Your task to perform on an android device: Go to location settings Image 0: 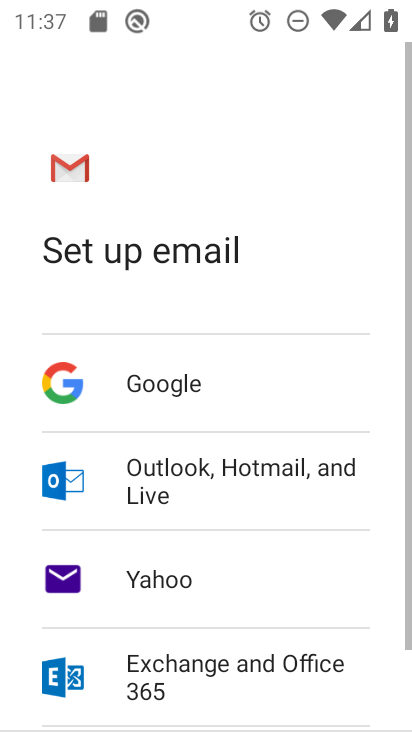
Step 0: press home button
Your task to perform on an android device: Go to location settings Image 1: 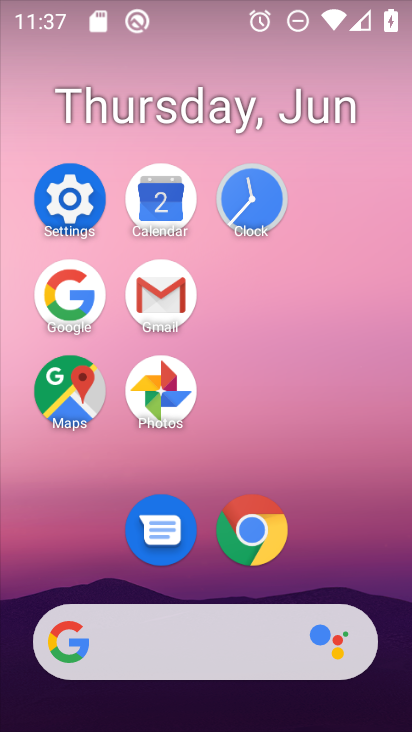
Step 1: click (99, 199)
Your task to perform on an android device: Go to location settings Image 2: 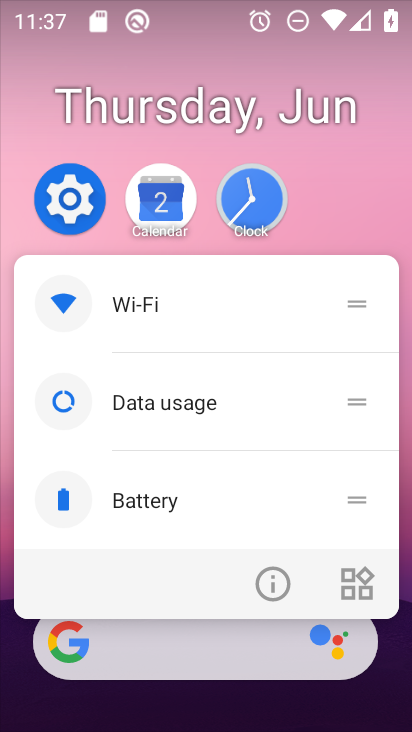
Step 2: click (92, 203)
Your task to perform on an android device: Go to location settings Image 3: 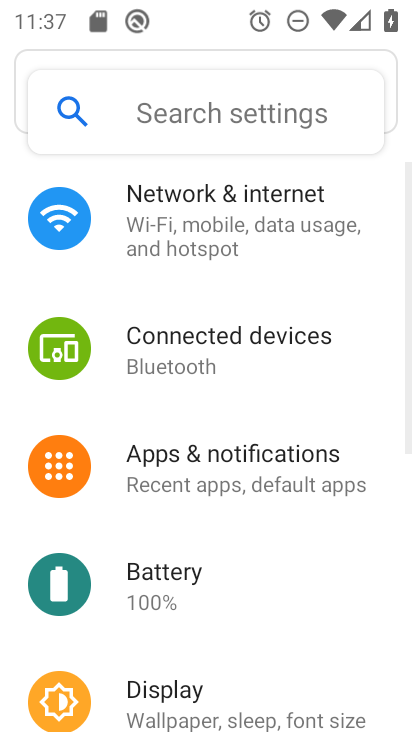
Step 3: drag from (245, 680) to (277, 247)
Your task to perform on an android device: Go to location settings Image 4: 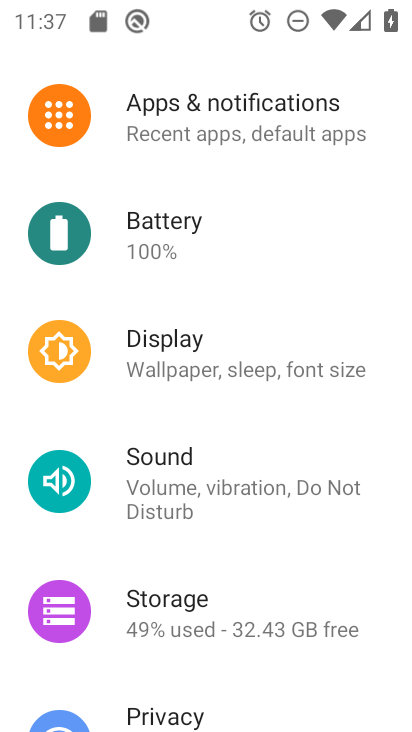
Step 4: drag from (223, 645) to (222, 237)
Your task to perform on an android device: Go to location settings Image 5: 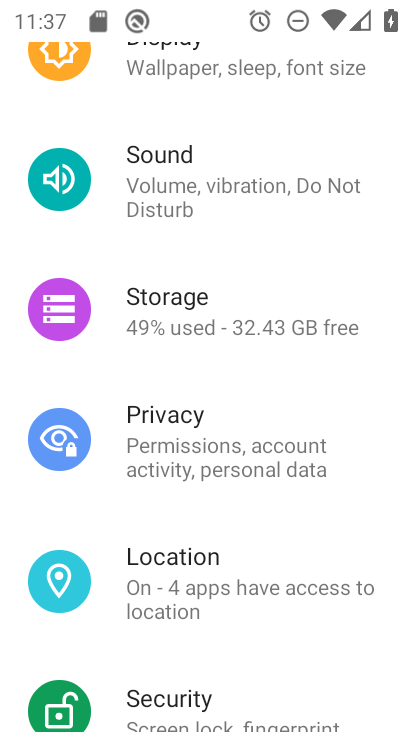
Step 5: click (228, 583)
Your task to perform on an android device: Go to location settings Image 6: 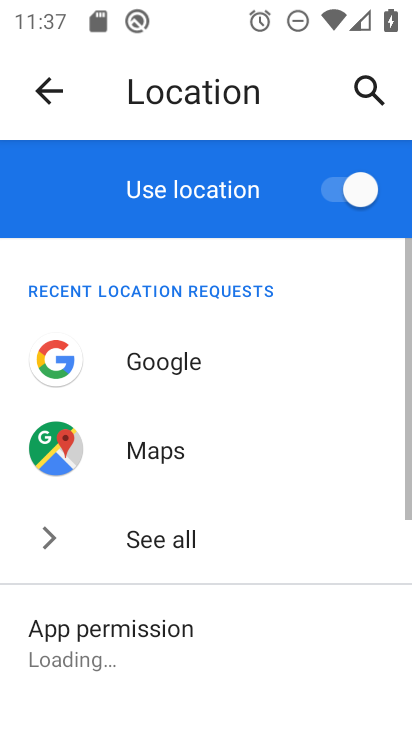
Step 6: task complete